Your task to perform on an android device: turn on notifications settings in the gmail app Image 0: 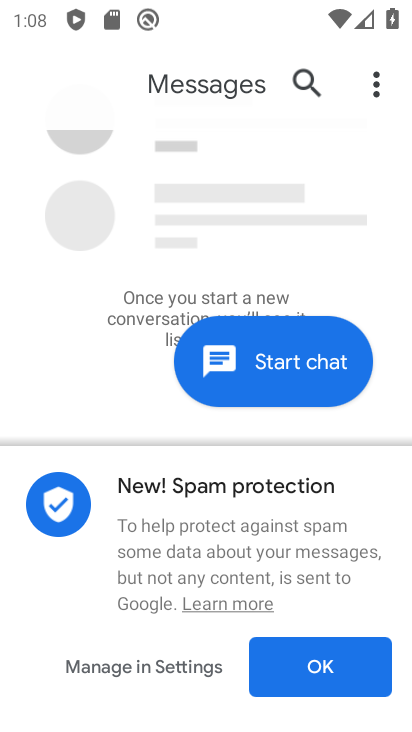
Step 0: press home button
Your task to perform on an android device: turn on notifications settings in the gmail app Image 1: 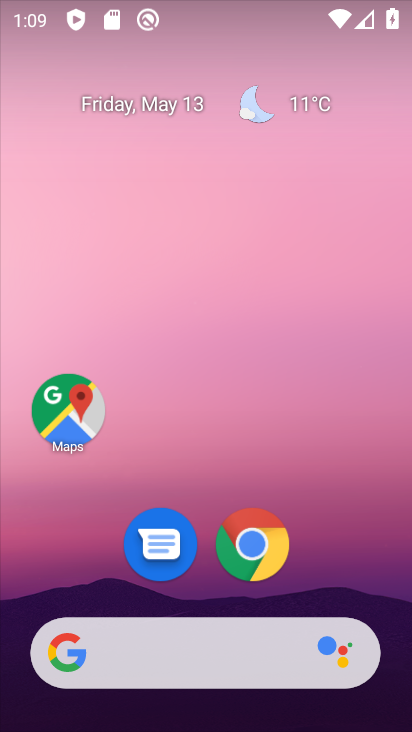
Step 1: drag from (215, 516) to (276, 154)
Your task to perform on an android device: turn on notifications settings in the gmail app Image 2: 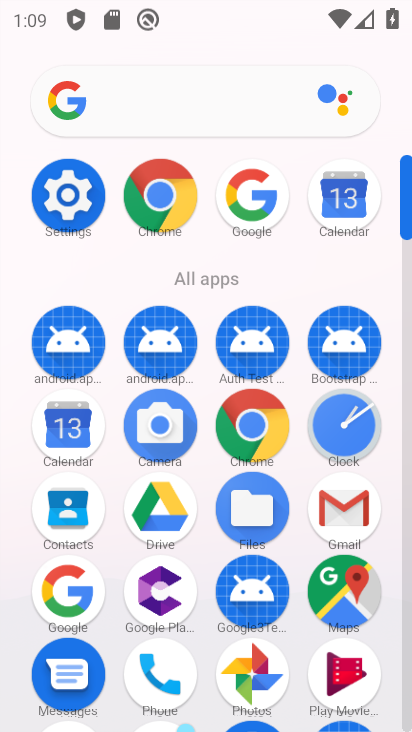
Step 2: click (348, 512)
Your task to perform on an android device: turn on notifications settings in the gmail app Image 3: 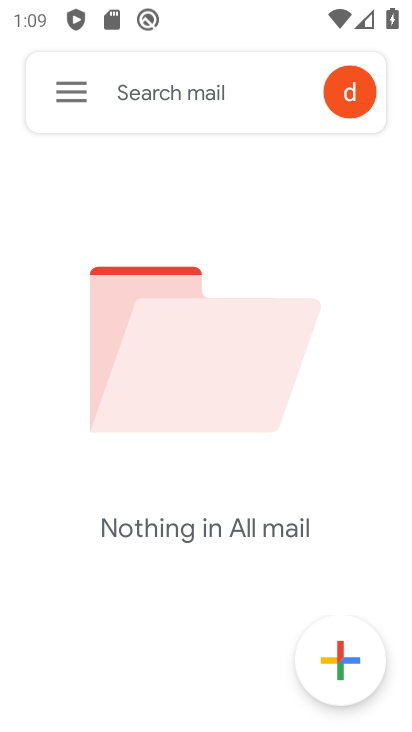
Step 3: click (60, 89)
Your task to perform on an android device: turn on notifications settings in the gmail app Image 4: 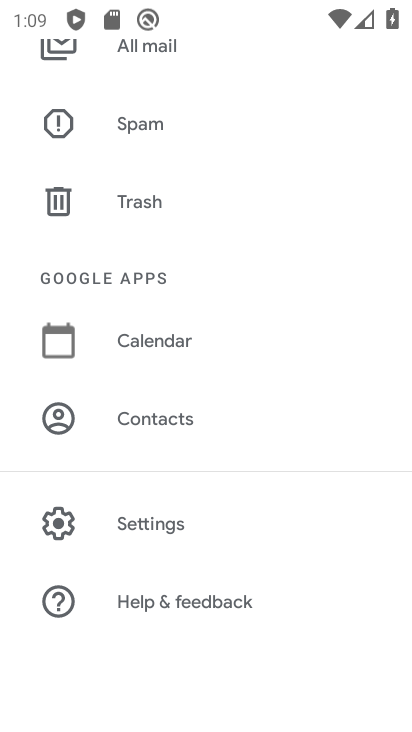
Step 4: click (134, 527)
Your task to perform on an android device: turn on notifications settings in the gmail app Image 5: 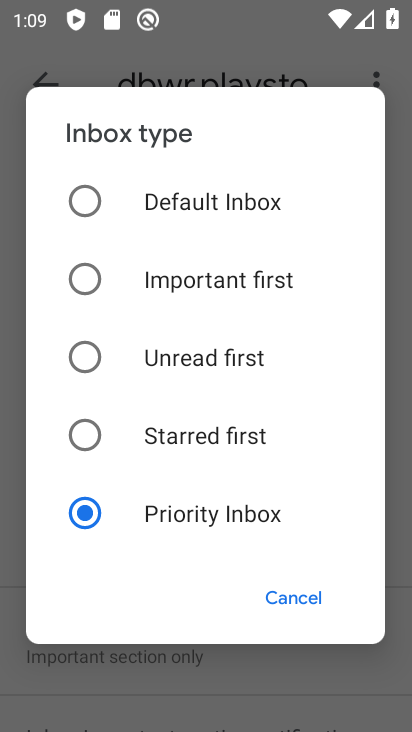
Step 5: click (299, 602)
Your task to perform on an android device: turn on notifications settings in the gmail app Image 6: 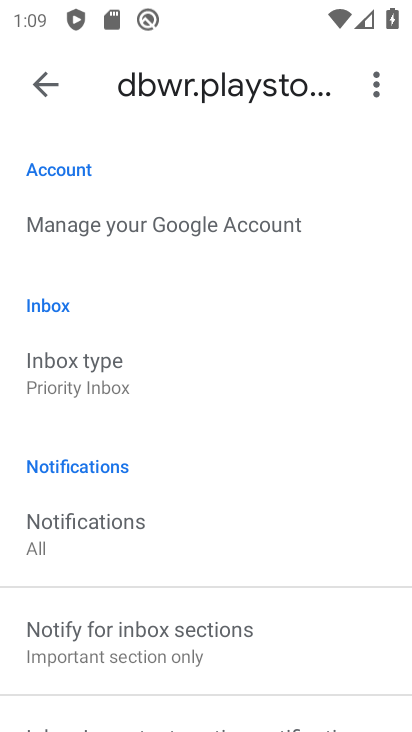
Step 6: click (100, 525)
Your task to perform on an android device: turn on notifications settings in the gmail app Image 7: 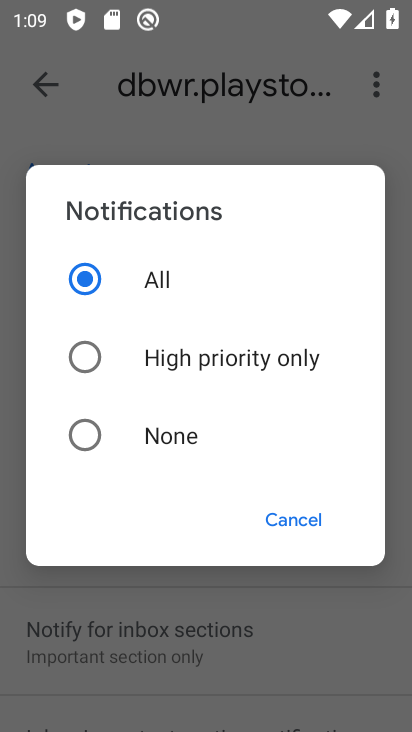
Step 7: click (296, 528)
Your task to perform on an android device: turn on notifications settings in the gmail app Image 8: 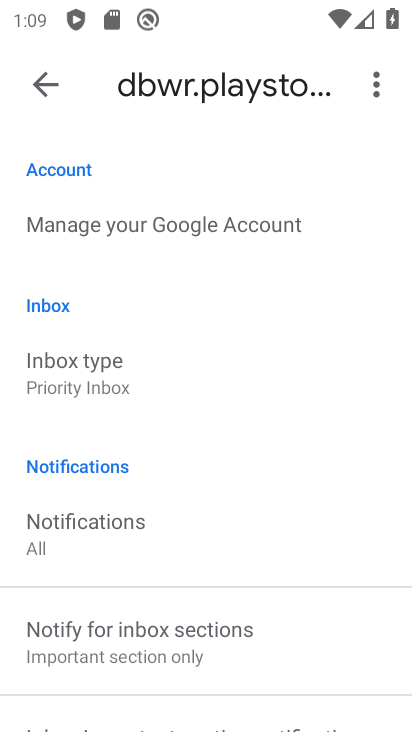
Step 8: click (293, 517)
Your task to perform on an android device: turn on notifications settings in the gmail app Image 9: 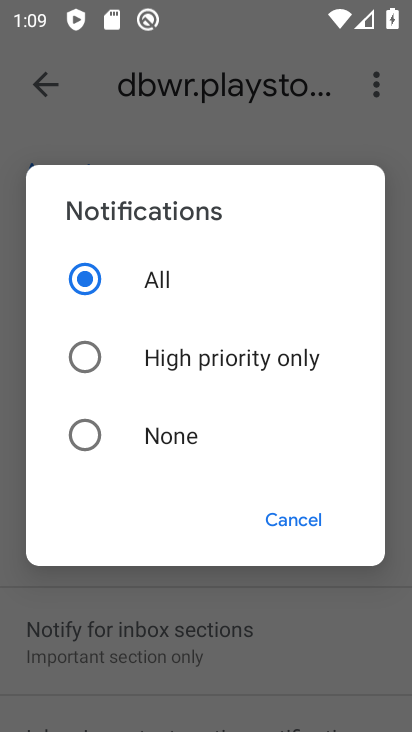
Step 9: click (289, 524)
Your task to perform on an android device: turn on notifications settings in the gmail app Image 10: 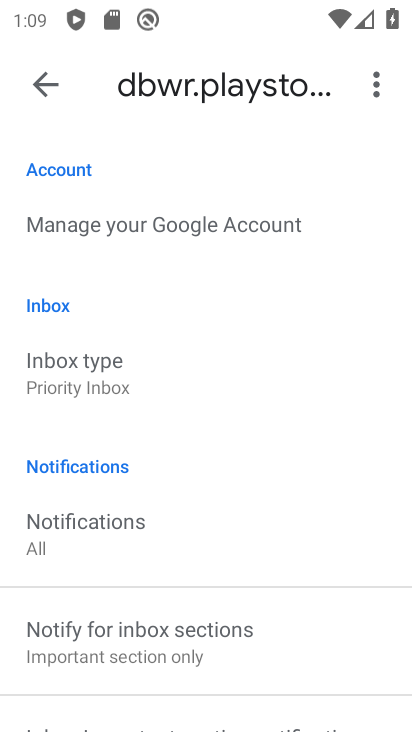
Step 10: click (115, 528)
Your task to perform on an android device: turn on notifications settings in the gmail app Image 11: 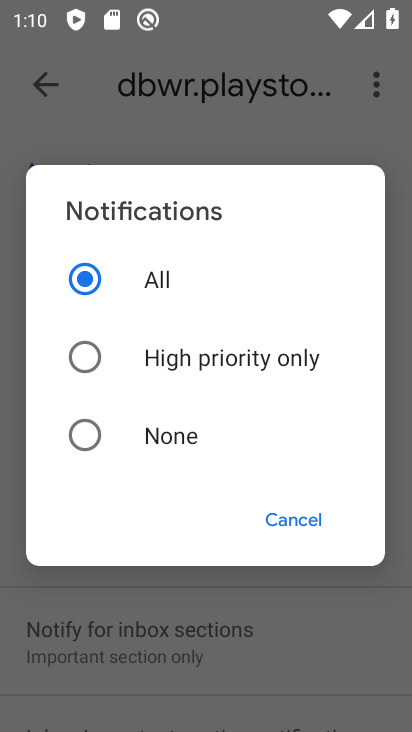
Step 11: task complete